Your task to perform on an android device: refresh tabs in the chrome app Image 0: 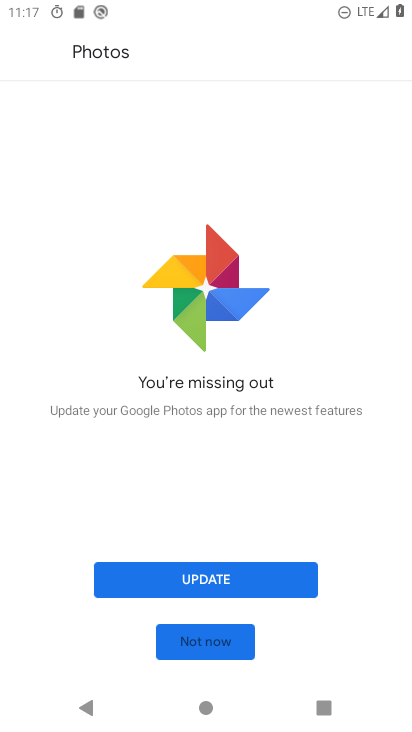
Step 0: click (231, 633)
Your task to perform on an android device: refresh tabs in the chrome app Image 1: 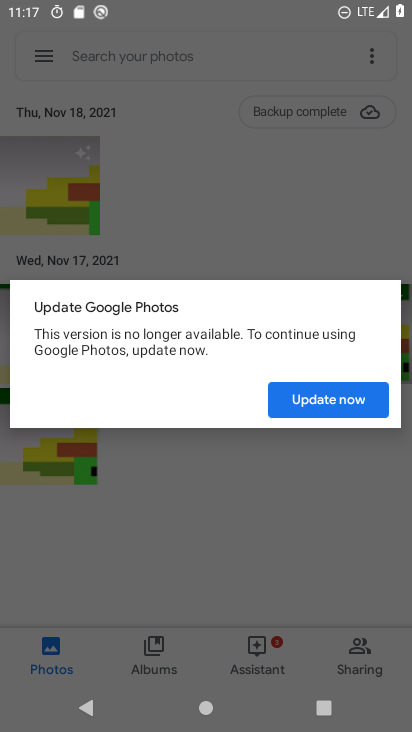
Step 1: press back button
Your task to perform on an android device: refresh tabs in the chrome app Image 2: 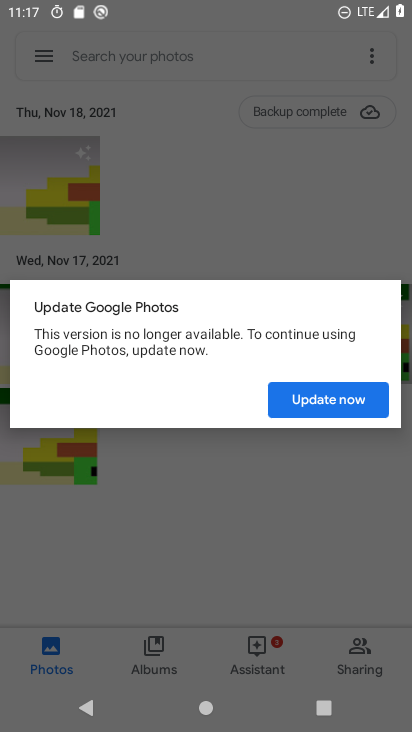
Step 2: press back button
Your task to perform on an android device: refresh tabs in the chrome app Image 3: 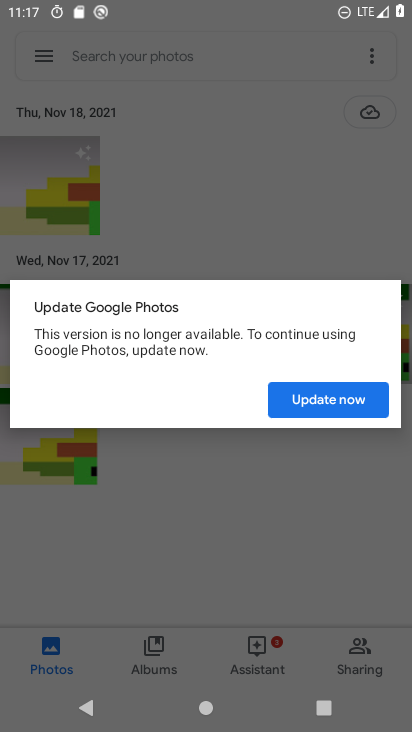
Step 3: press home button
Your task to perform on an android device: refresh tabs in the chrome app Image 4: 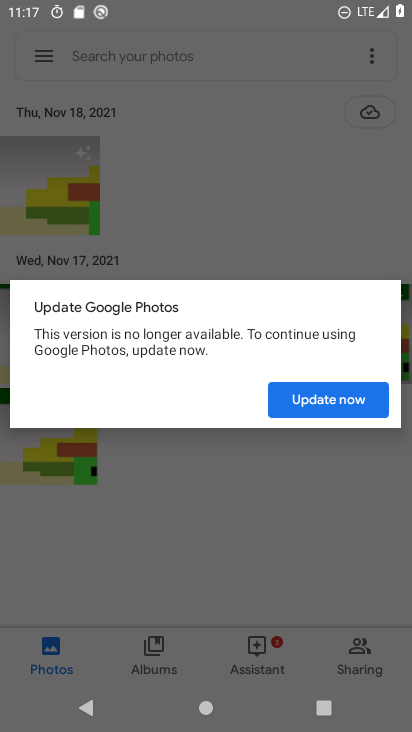
Step 4: press home button
Your task to perform on an android device: refresh tabs in the chrome app Image 5: 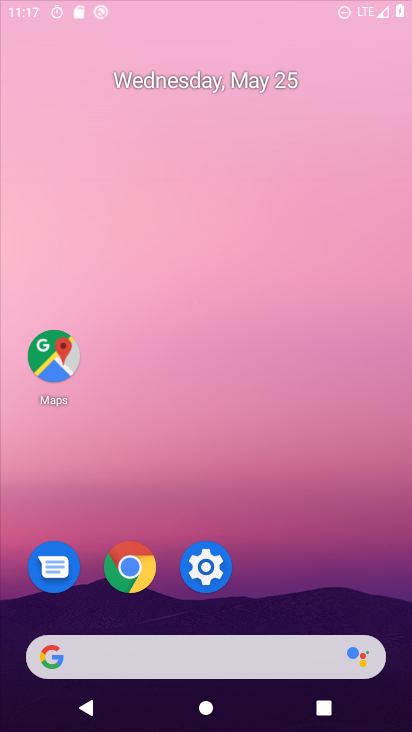
Step 5: press home button
Your task to perform on an android device: refresh tabs in the chrome app Image 6: 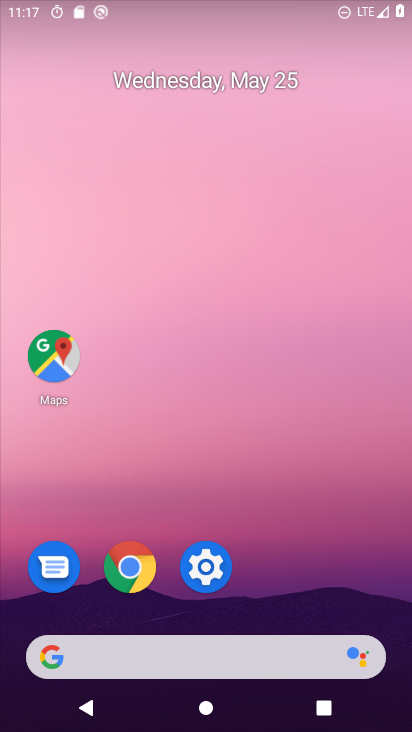
Step 6: press home button
Your task to perform on an android device: refresh tabs in the chrome app Image 7: 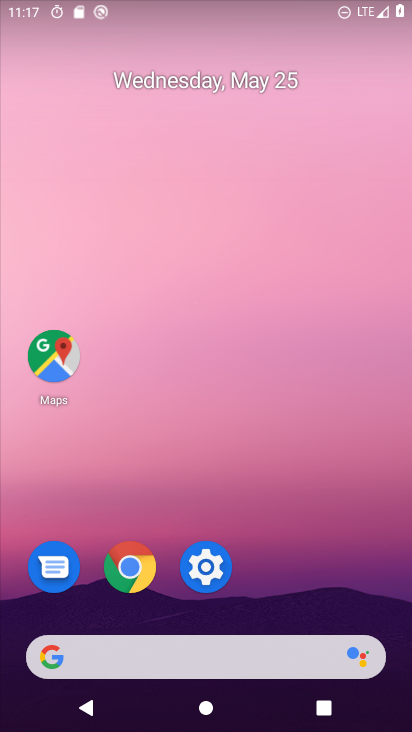
Step 7: drag from (307, 633) to (88, 79)
Your task to perform on an android device: refresh tabs in the chrome app Image 8: 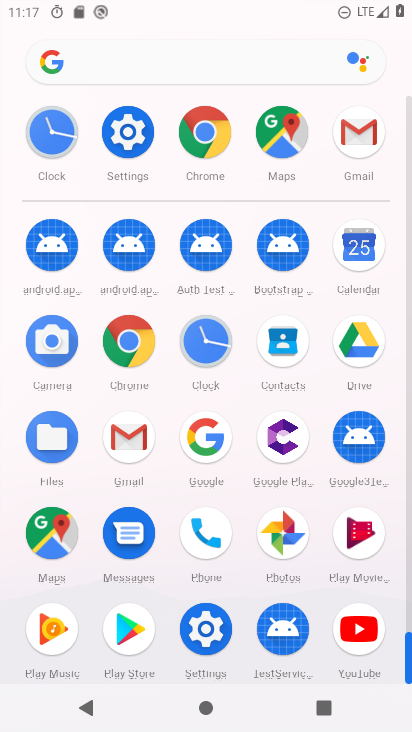
Step 8: click (209, 131)
Your task to perform on an android device: refresh tabs in the chrome app Image 9: 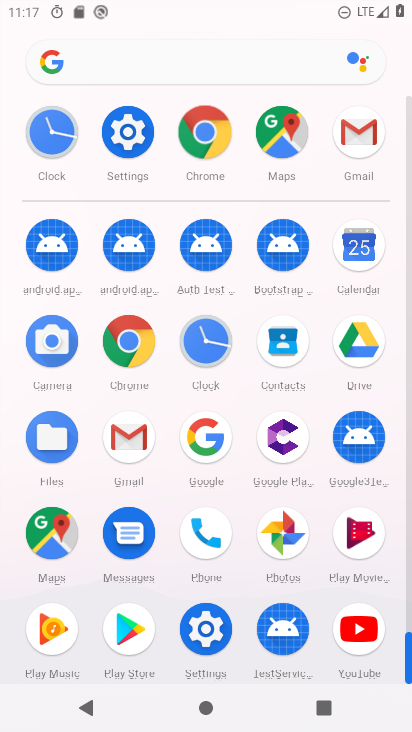
Step 9: click (209, 131)
Your task to perform on an android device: refresh tabs in the chrome app Image 10: 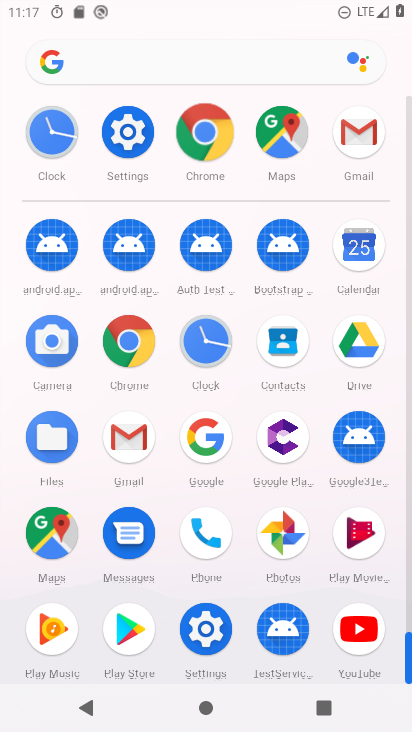
Step 10: click (211, 131)
Your task to perform on an android device: refresh tabs in the chrome app Image 11: 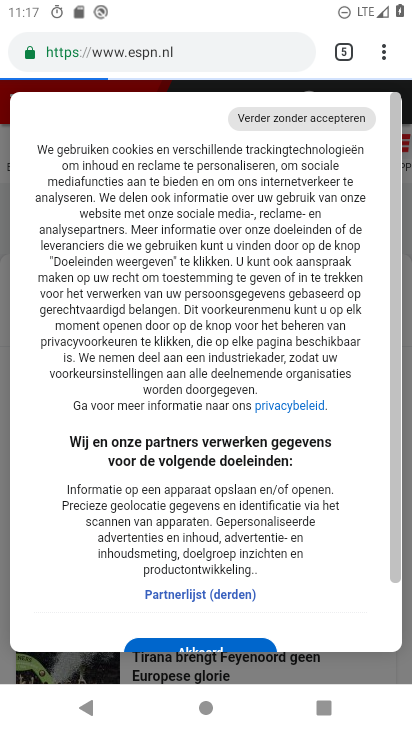
Step 11: click (378, 49)
Your task to perform on an android device: refresh tabs in the chrome app Image 12: 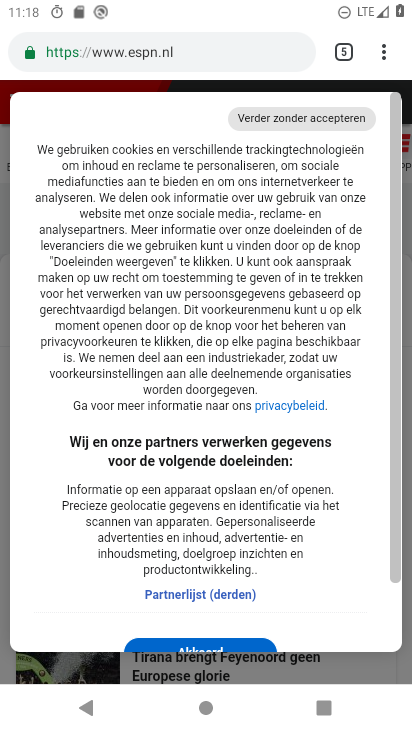
Step 12: click (374, 51)
Your task to perform on an android device: refresh tabs in the chrome app Image 13: 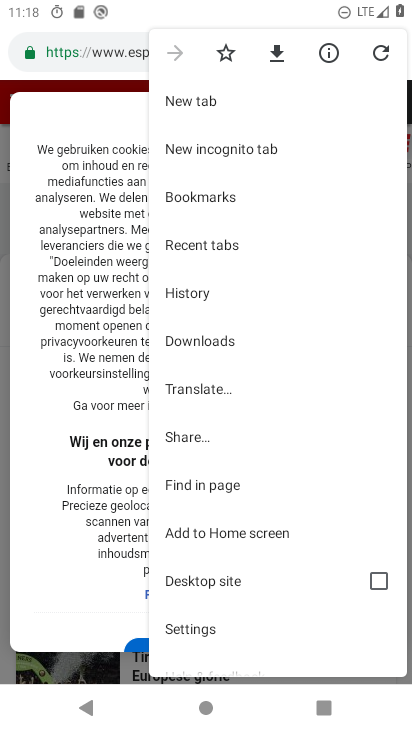
Step 13: click (379, 52)
Your task to perform on an android device: refresh tabs in the chrome app Image 14: 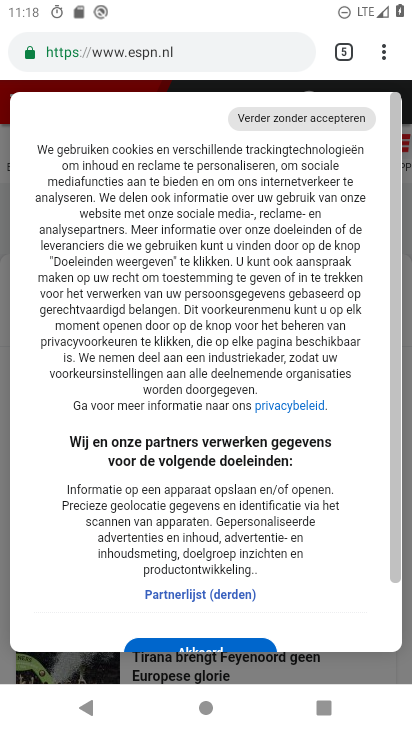
Step 14: task complete